Your task to perform on an android device: Open calendar and show me the second week of next month Image 0: 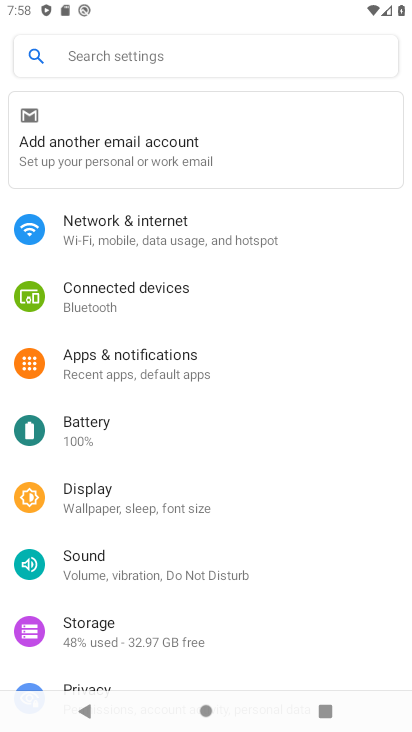
Step 0: press home button
Your task to perform on an android device: Open calendar and show me the second week of next month Image 1: 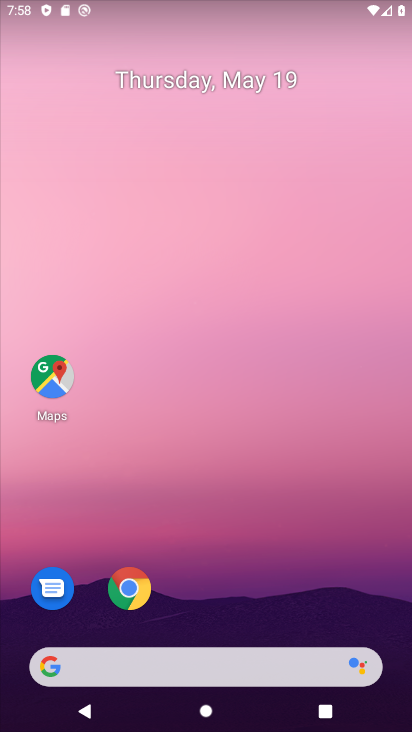
Step 1: drag from (220, 728) to (210, 141)
Your task to perform on an android device: Open calendar and show me the second week of next month Image 2: 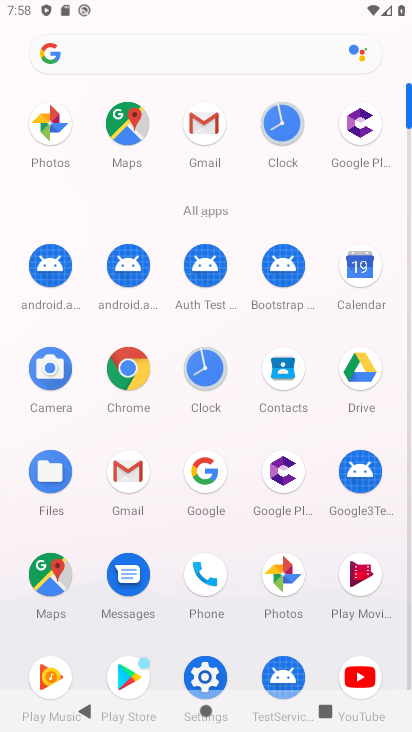
Step 2: click (363, 269)
Your task to perform on an android device: Open calendar and show me the second week of next month Image 3: 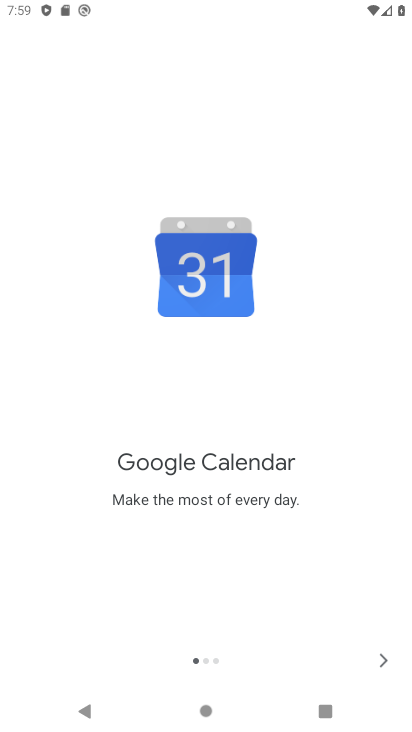
Step 3: click (382, 653)
Your task to perform on an android device: Open calendar and show me the second week of next month Image 4: 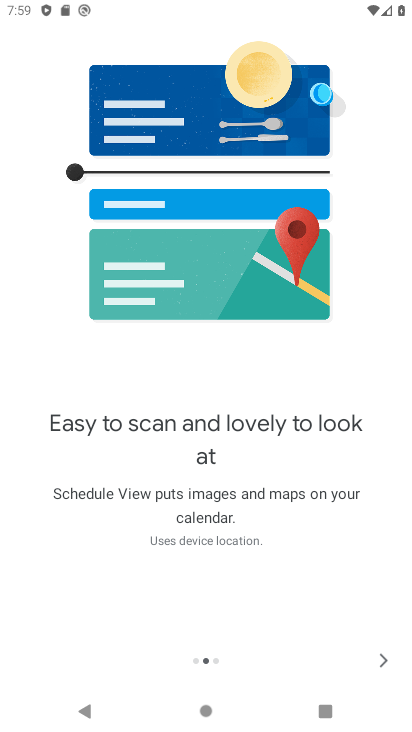
Step 4: click (384, 656)
Your task to perform on an android device: Open calendar and show me the second week of next month Image 5: 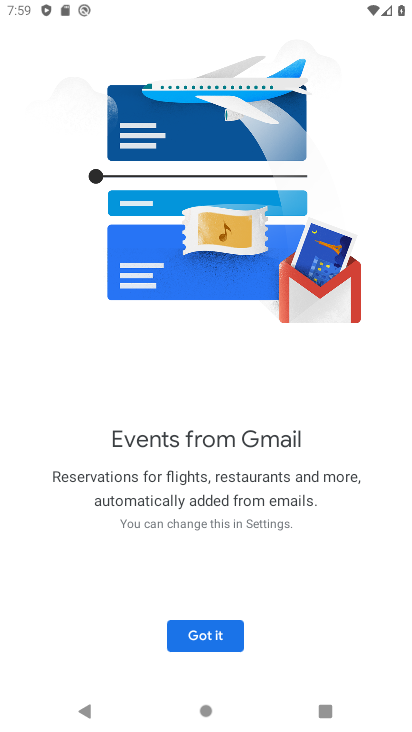
Step 5: click (223, 637)
Your task to perform on an android device: Open calendar and show me the second week of next month Image 6: 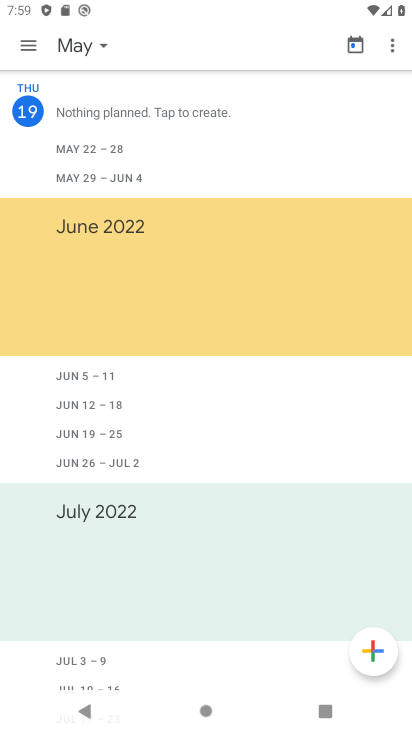
Step 6: click (76, 44)
Your task to perform on an android device: Open calendar and show me the second week of next month Image 7: 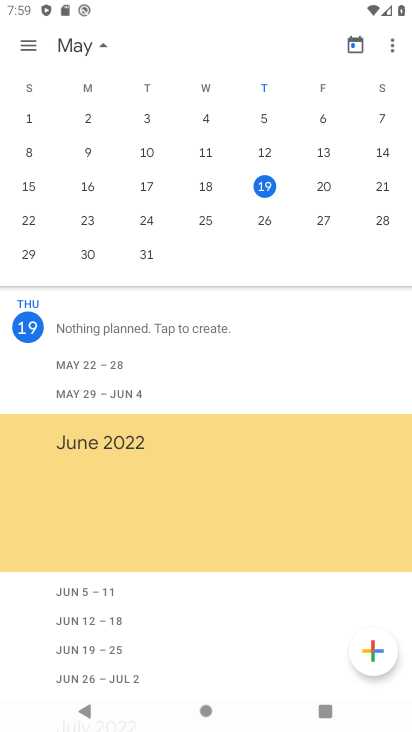
Step 7: drag from (362, 204) to (0, 269)
Your task to perform on an android device: Open calendar and show me the second week of next month Image 8: 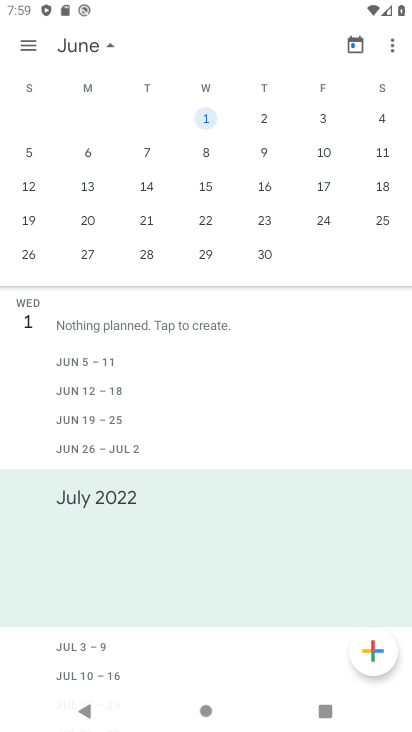
Step 8: click (88, 182)
Your task to perform on an android device: Open calendar and show me the second week of next month Image 9: 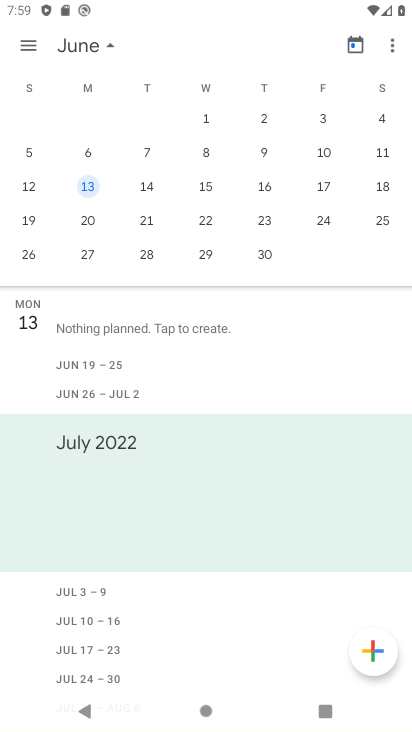
Step 9: click (26, 42)
Your task to perform on an android device: Open calendar and show me the second week of next month Image 10: 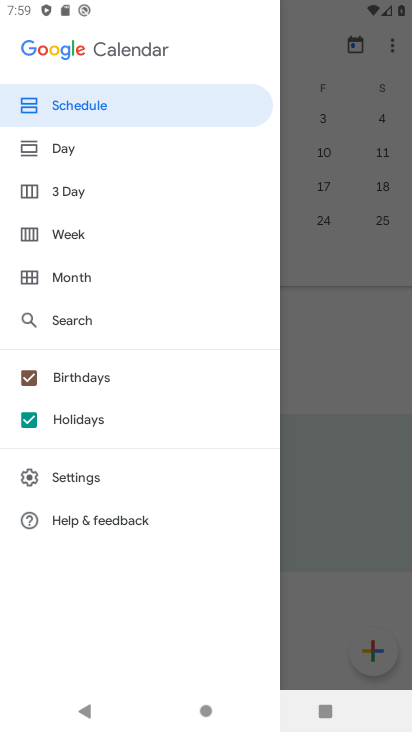
Step 10: click (66, 224)
Your task to perform on an android device: Open calendar and show me the second week of next month Image 11: 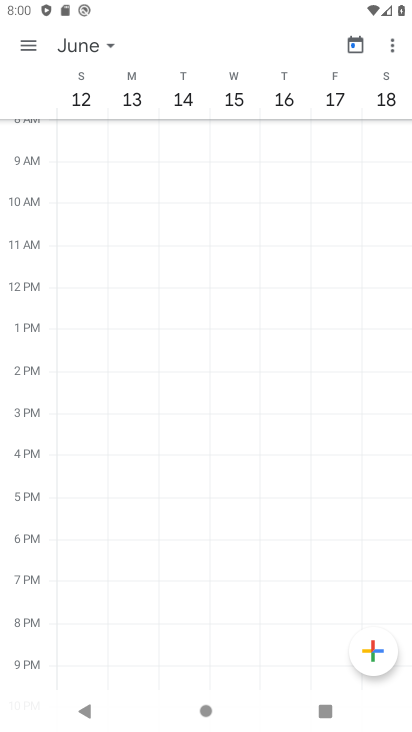
Step 11: task complete